Your task to perform on an android device: turn off javascript in the chrome app Image 0: 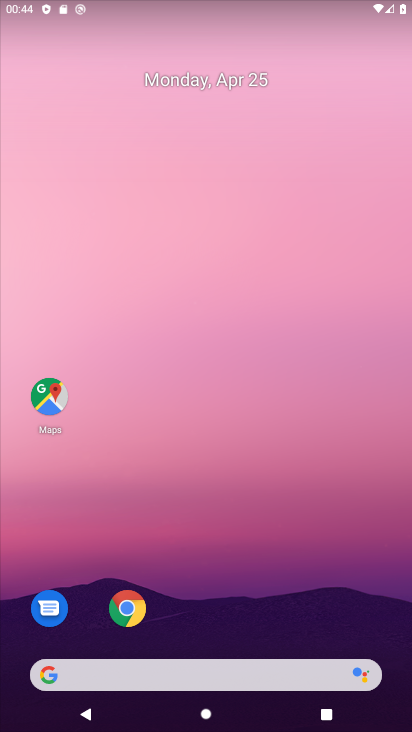
Step 0: drag from (226, 567) to (189, 123)
Your task to perform on an android device: turn off javascript in the chrome app Image 1: 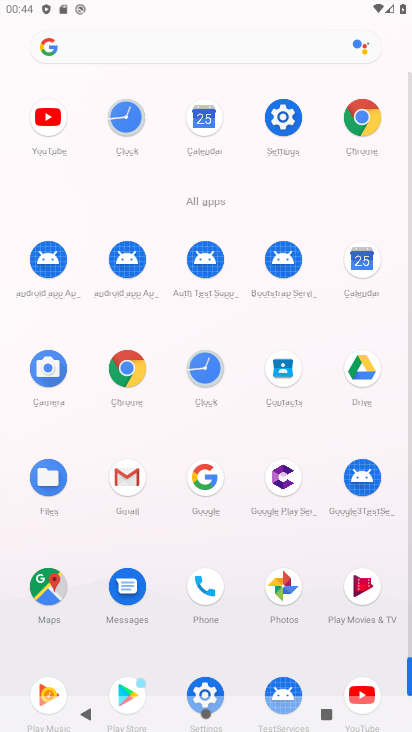
Step 1: click (362, 128)
Your task to perform on an android device: turn off javascript in the chrome app Image 2: 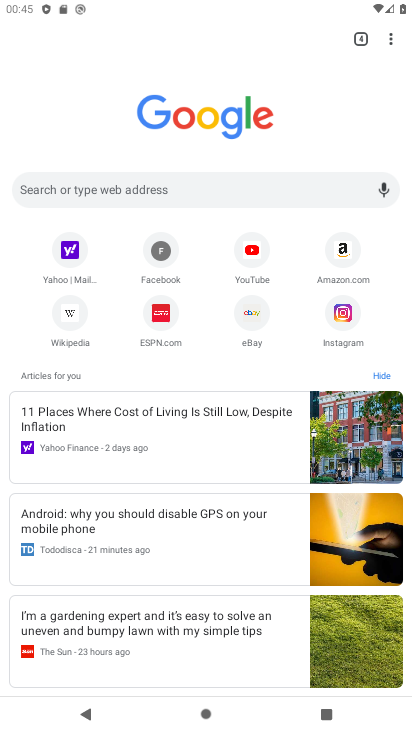
Step 2: click (388, 61)
Your task to perform on an android device: turn off javascript in the chrome app Image 3: 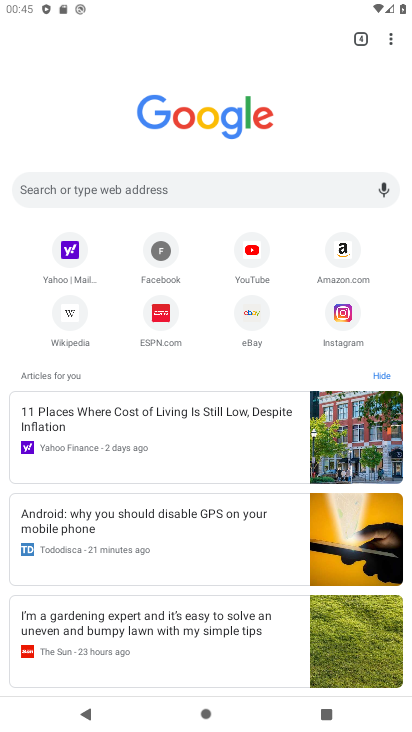
Step 3: drag from (388, 56) to (343, 322)
Your task to perform on an android device: turn off javascript in the chrome app Image 4: 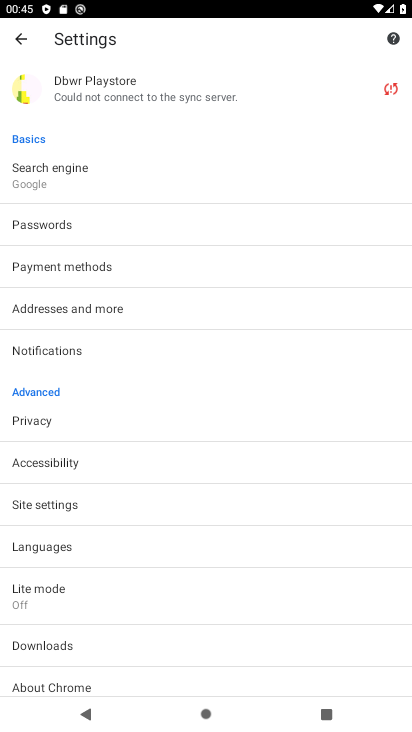
Step 4: click (184, 587)
Your task to perform on an android device: turn off javascript in the chrome app Image 5: 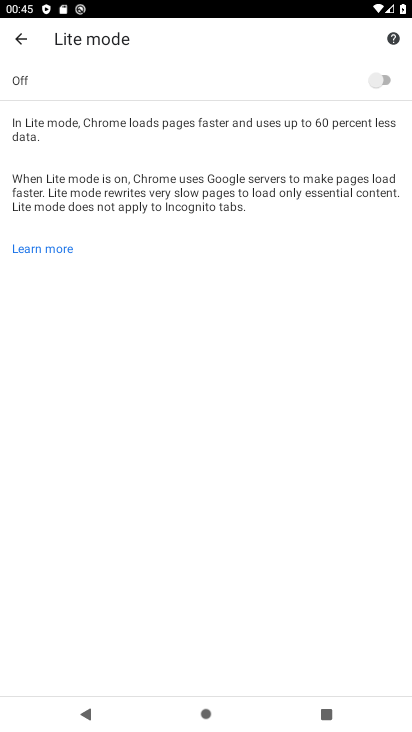
Step 5: task complete